Your task to perform on an android device: turn on the 12-hour format for clock Image 0: 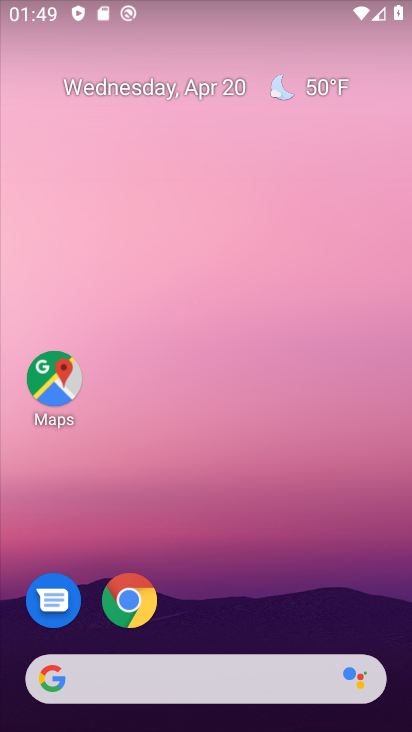
Step 0: drag from (285, 641) to (293, 114)
Your task to perform on an android device: turn on the 12-hour format for clock Image 1: 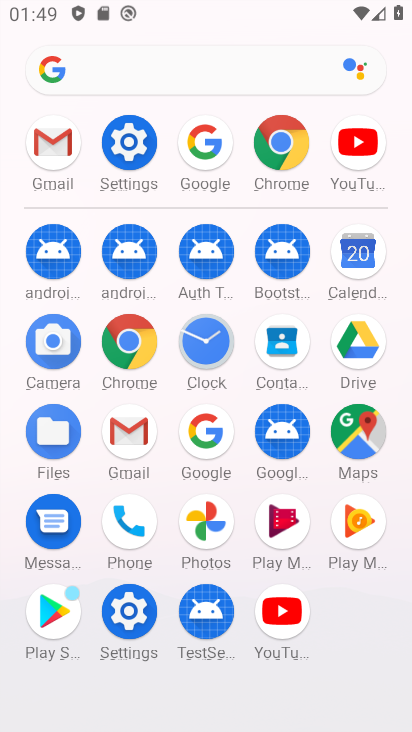
Step 1: click (190, 337)
Your task to perform on an android device: turn on the 12-hour format for clock Image 2: 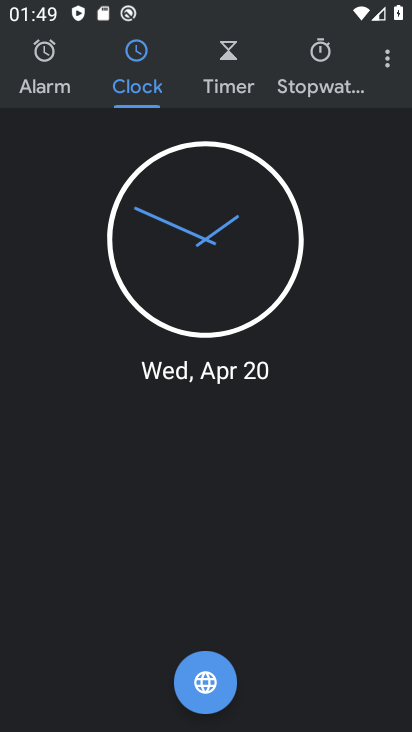
Step 2: click (391, 57)
Your task to perform on an android device: turn on the 12-hour format for clock Image 3: 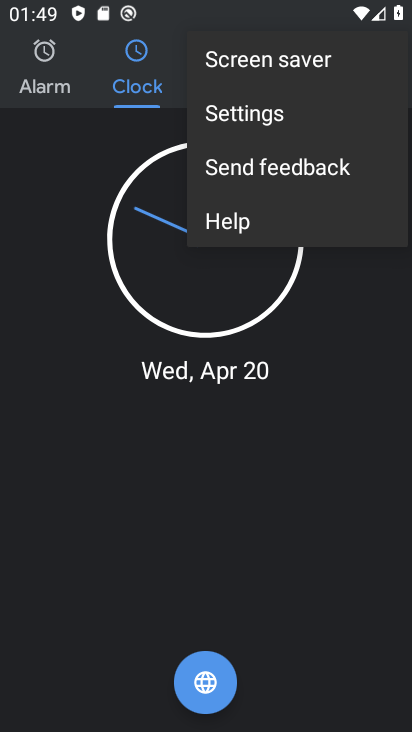
Step 3: click (291, 115)
Your task to perform on an android device: turn on the 12-hour format for clock Image 4: 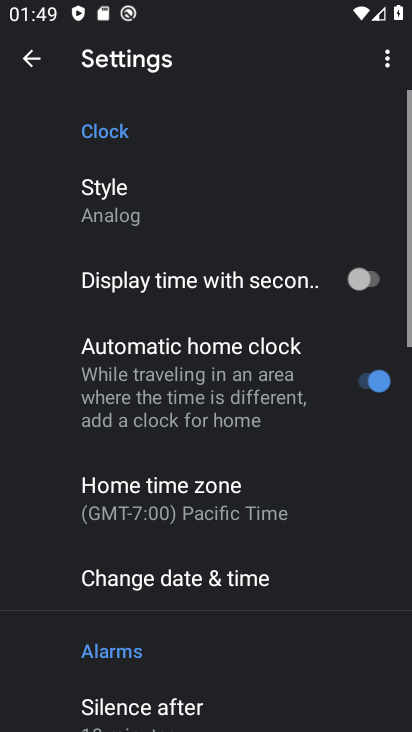
Step 4: drag from (191, 452) to (201, 64)
Your task to perform on an android device: turn on the 12-hour format for clock Image 5: 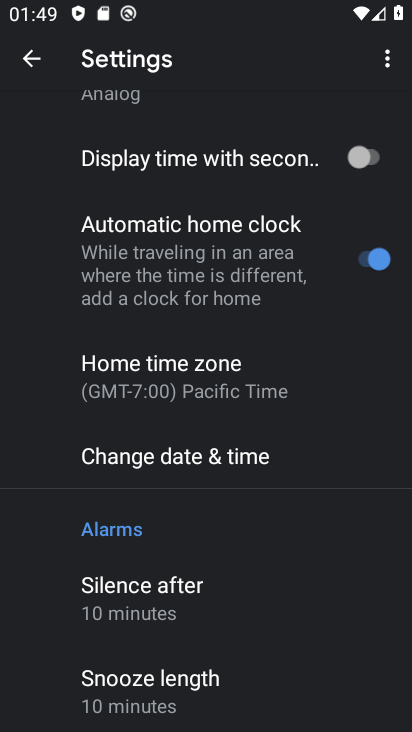
Step 5: click (208, 468)
Your task to perform on an android device: turn on the 12-hour format for clock Image 6: 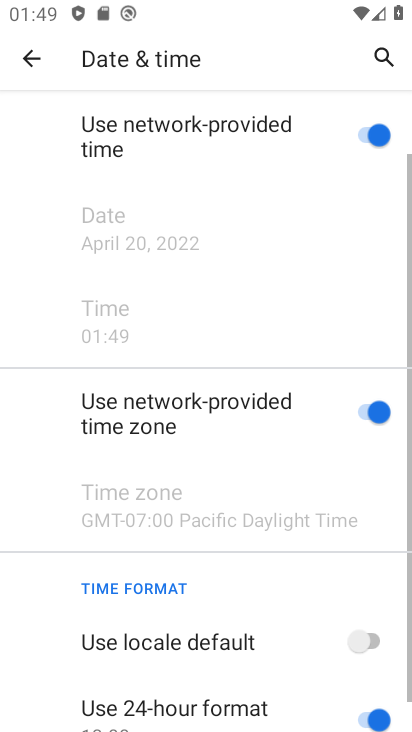
Step 6: drag from (170, 575) to (174, 143)
Your task to perform on an android device: turn on the 12-hour format for clock Image 7: 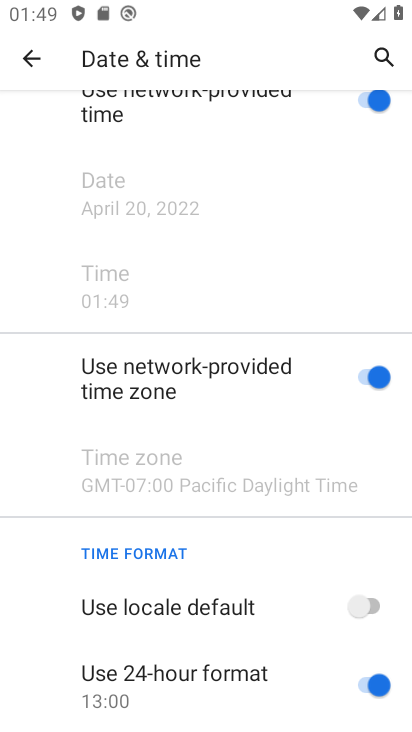
Step 7: click (369, 679)
Your task to perform on an android device: turn on the 12-hour format for clock Image 8: 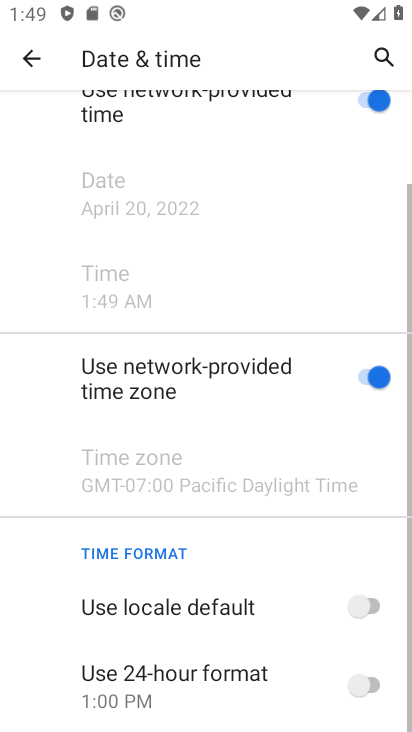
Step 8: click (358, 604)
Your task to perform on an android device: turn on the 12-hour format for clock Image 9: 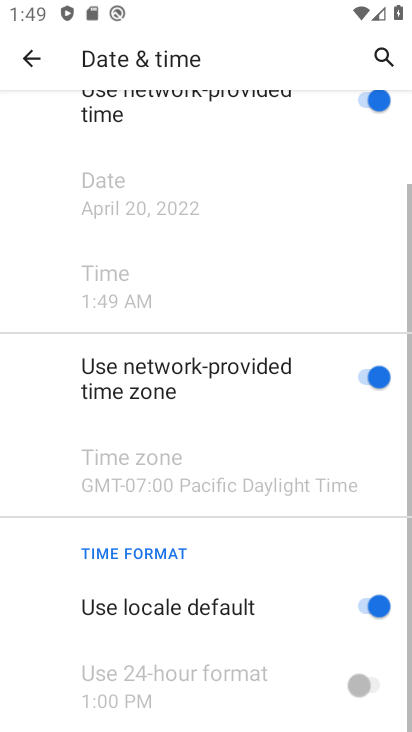
Step 9: task complete